Your task to perform on an android device: toggle sleep mode Image 0: 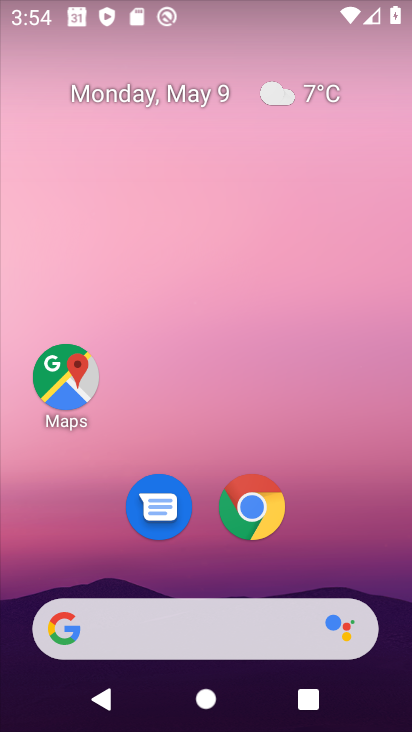
Step 0: drag from (245, 654) to (242, 213)
Your task to perform on an android device: toggle sleep mode Image 1: 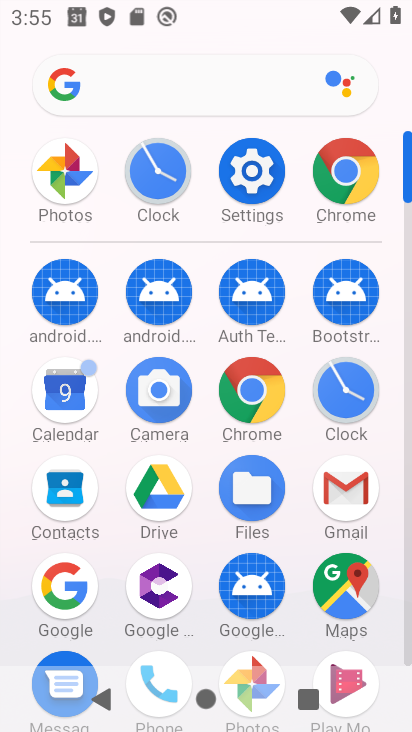
Step 1: click (259, 196)
Your task to perform on an android device: toggle sleep mode Image 2: 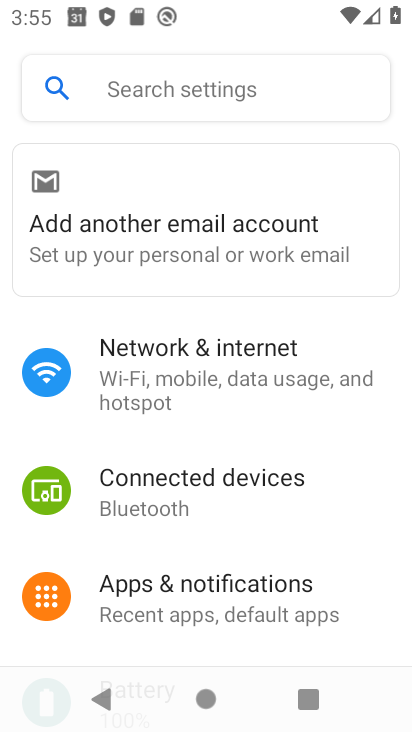
Step 2: click (166, 77)
Your task to perform on an android device: toggle sleep mode Image 3: 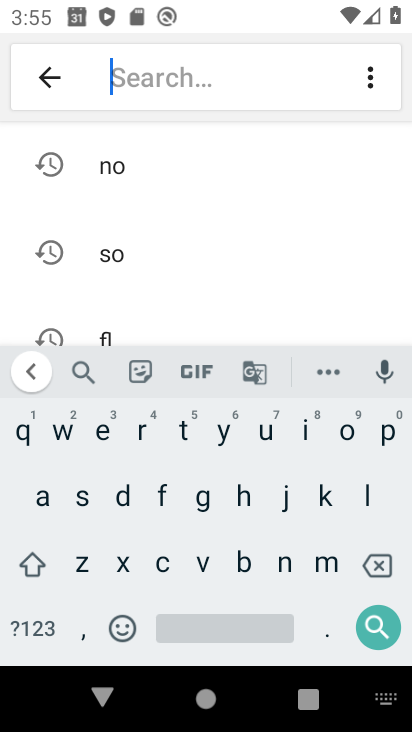
Step 3: click (81, 496)
Your task to perform on an android device: toggle sleep mode Image 4: 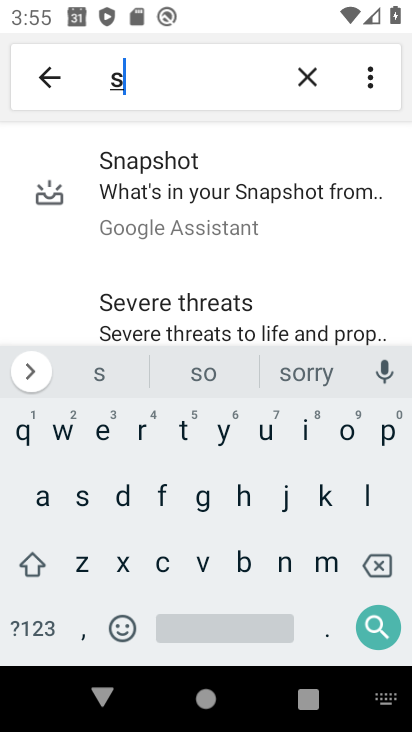
Step 4: click (367, 487)
Your task to perform on an android device: toggle sleep mode Image 5: 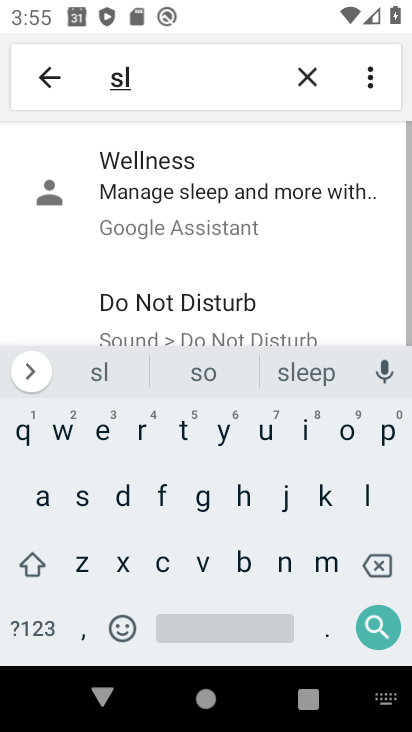
Step 5: click (99, 437)
Your task to perform on an android device: toggle sleep mode Image 6: 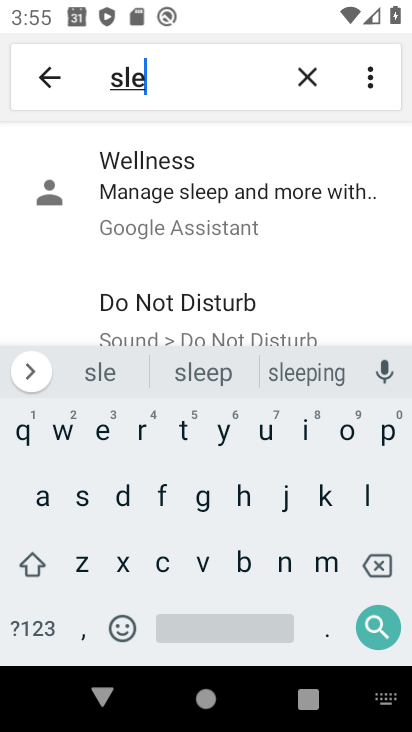
Step 6: click (186, 209)
Your task to perform on an android device: toggle sleep mode Image 7: 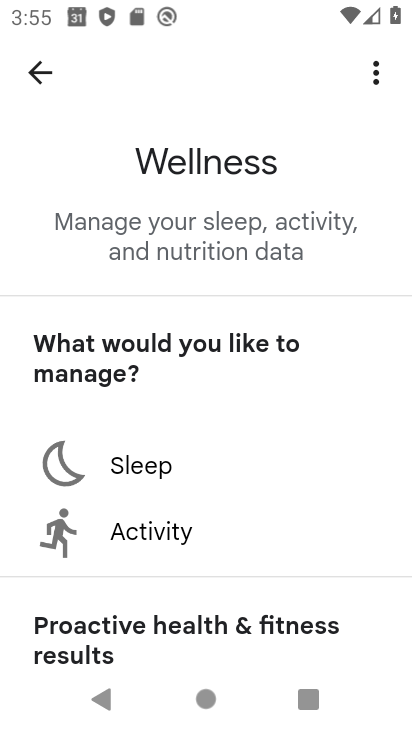
Step 7: click (145, 462)
Your task to perform on an android device: toggle sleep mode Image 8: 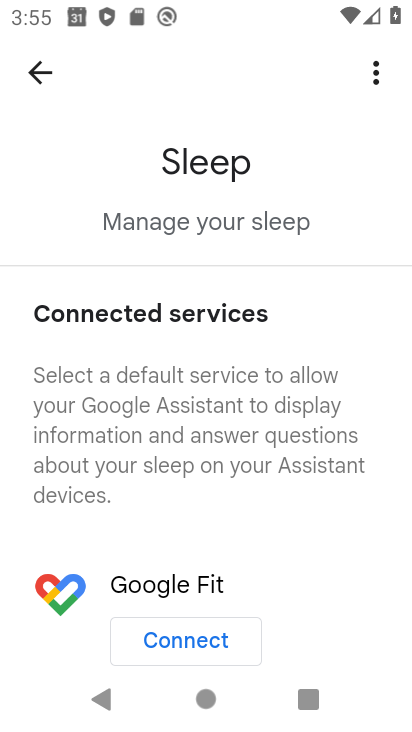
Step 8: task complete